Your task to perform on an android device: set the timer Image 0: 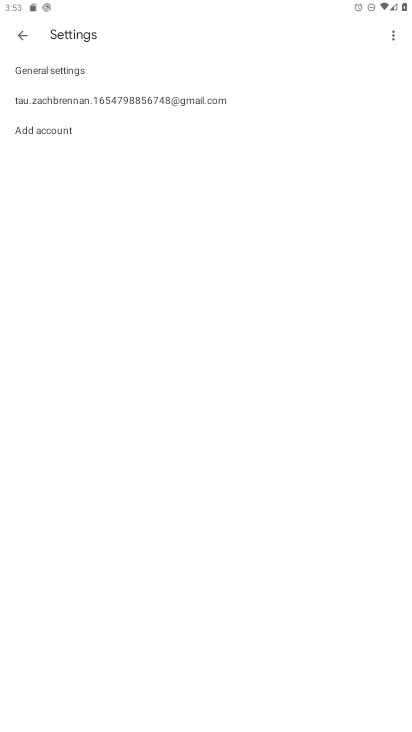
Step 0: drag from (183, 612) to (183, 85)
Your task to perform on an android device: set the timer Image 1: 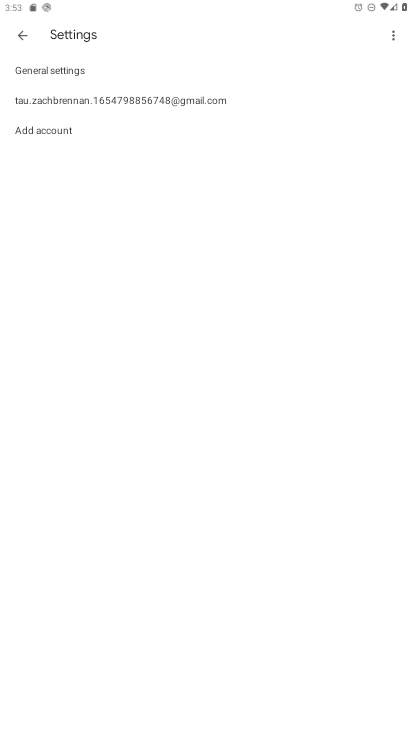
Step 1: press home button
Your task to perform on an android device: set the timer Image 2: 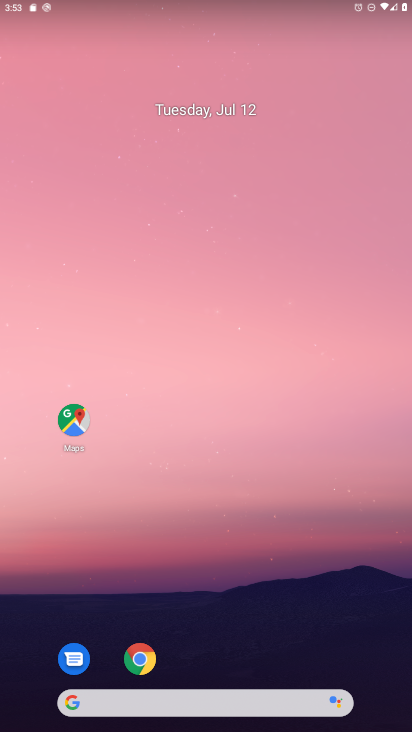
Step 2: drag from (179, 246) to (198, 0)
Your task to perform on an android device: set the timer Image 3: 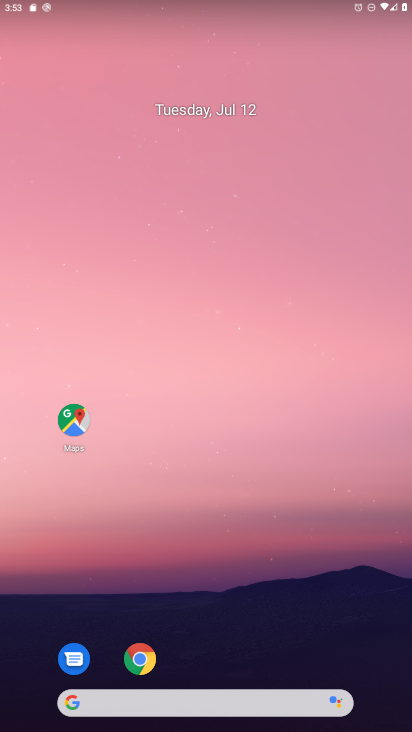
Step 3: drag from (152, 141) to (144, 59)
Your task to perform on an android device: set the timer Image 4: 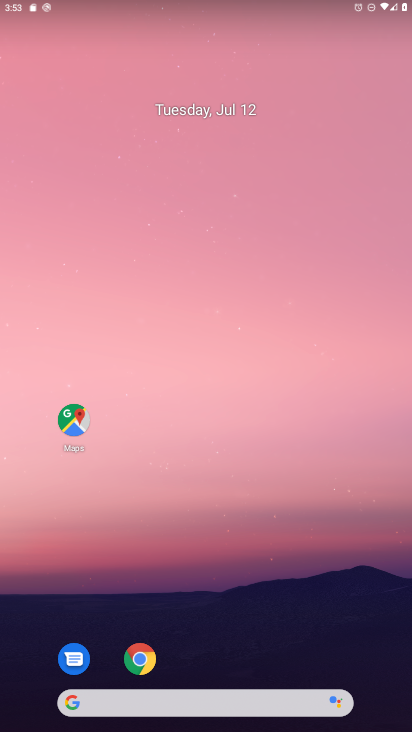
Step 4: drag from (199, 370) to (201, 79)
Your task to perform on an android device: set the timer Image 5: 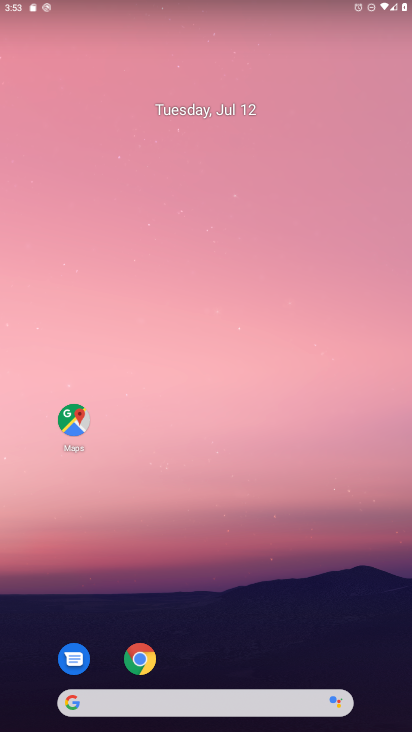
Step 5: click (175, 0)
Your task to perform on an android device: set the timer Image 6: 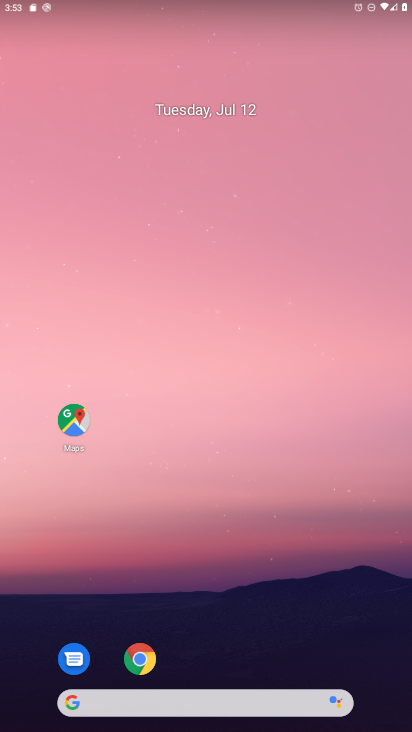
Step 6: drag from (197, 652) to (141, 22)
Your task to perform on an android device: set the timer Image 7: 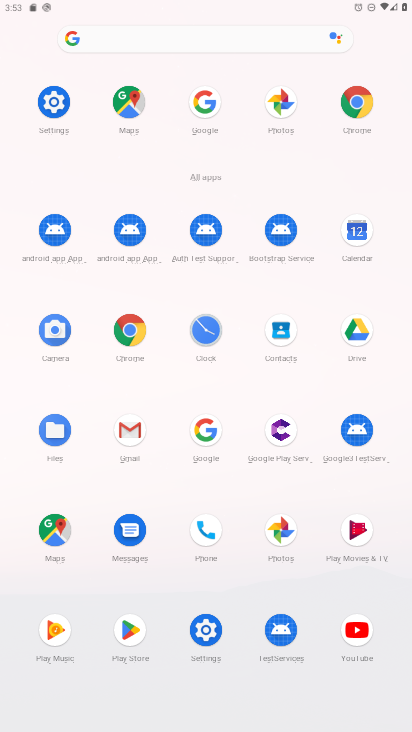
Step 7: click (207, 329)
Your task to perform on an android device: set the timer Image 8: 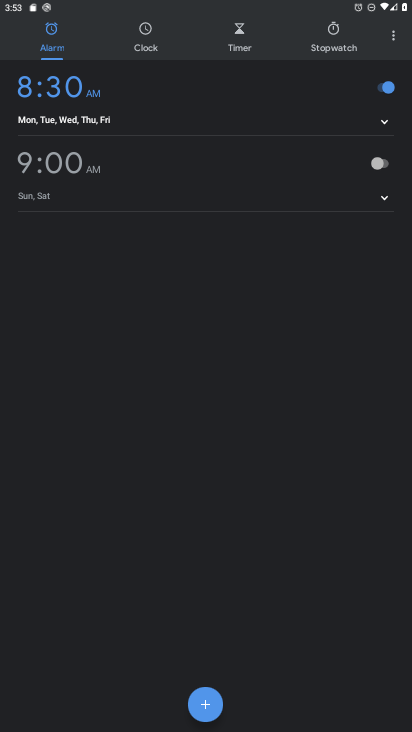
Step 8: click (236, 46)
Your task to perform on an android device: set the timer Image 9: 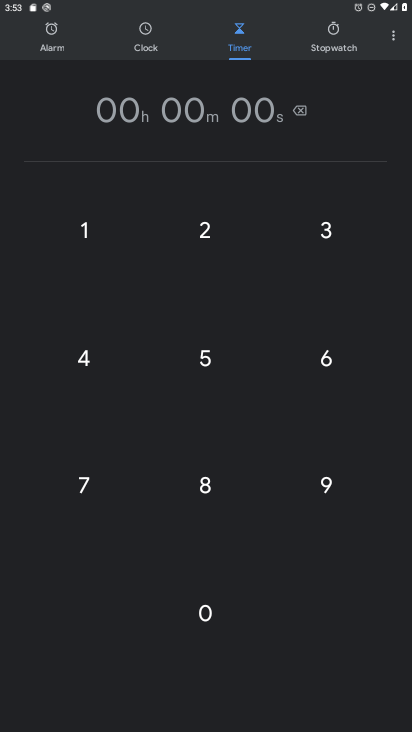
Step 9: click (208, 226)
Your task to perform on an android device: set the timer Image 10: 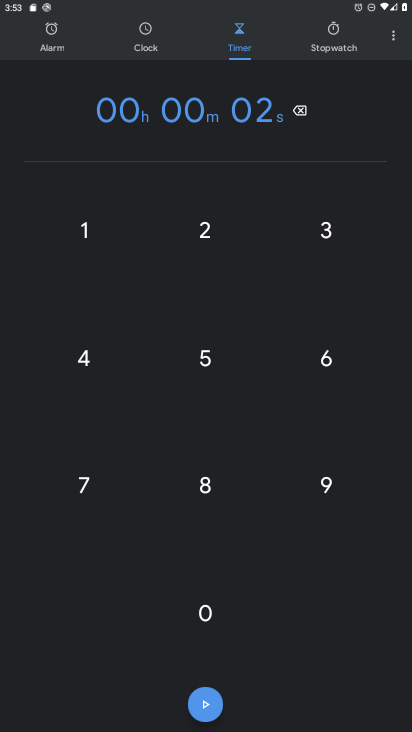
Step 10: click (199, 616)
Your task to perform on an android device: set the timer Image 11: 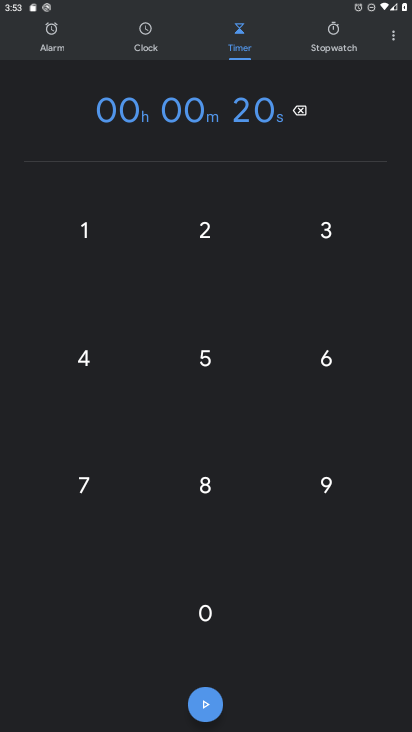
Step 11: click (199, 616)
Your task to perform on an android device: set the timer Image 12: 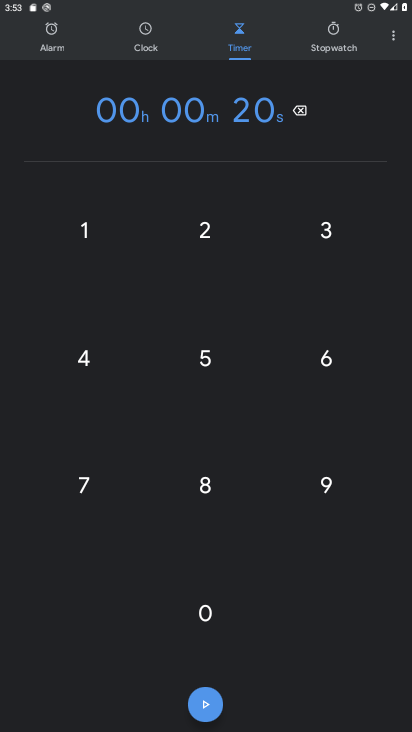
Step 12: click (199, 616)
Your task to perform on an android device: set the timer Image 13: 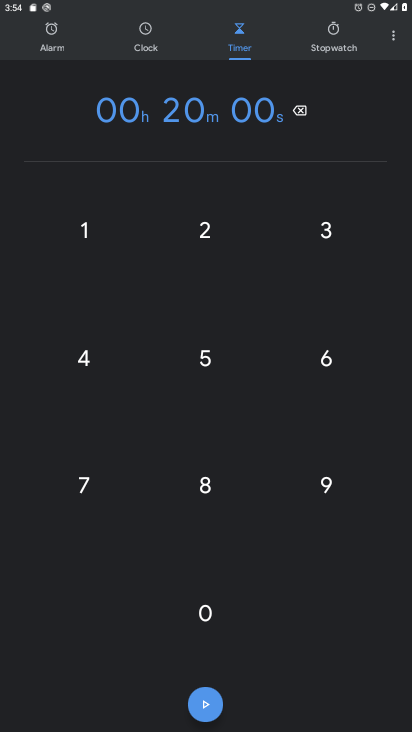
Step 13: click (215, 716)
Your task to perform on an android device: set the timer Image 14: 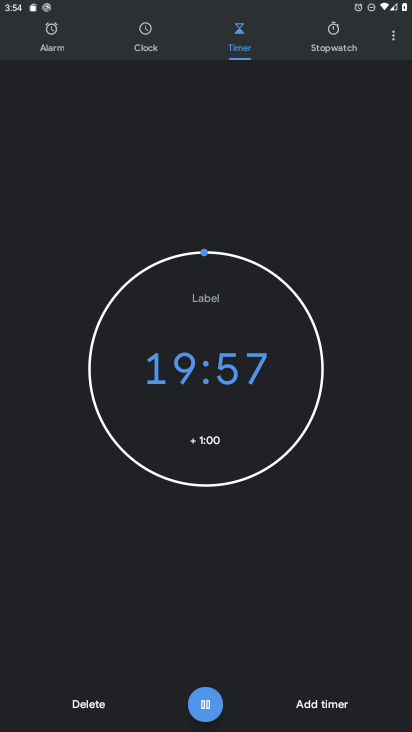
Step 14: click (325, 701)
Your task to perform on an android device: set the timer Image 15: 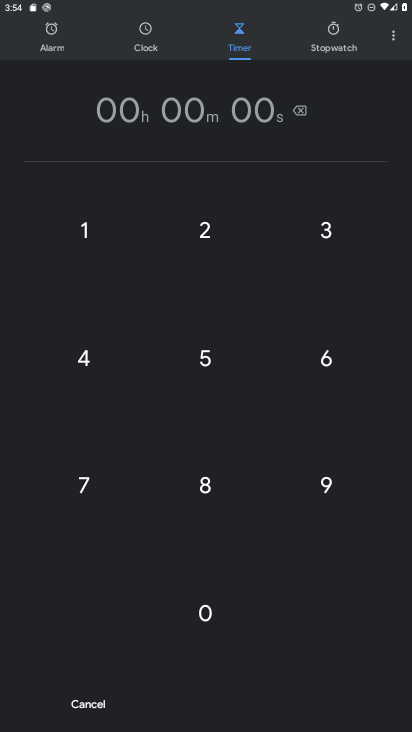
Step 15: task complete